Your task to perform on an android device: What's on my calendar today? Image 0: 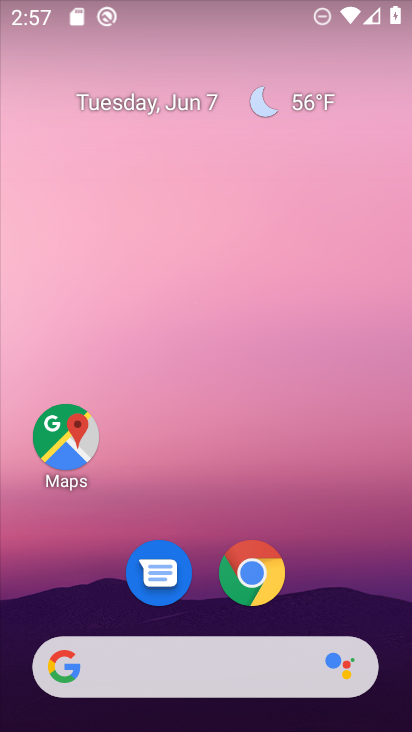
Step 0: drag from (339, 606) to (331, 12)
Your task to perform on an android device: What's on my calendar today? Image 1: 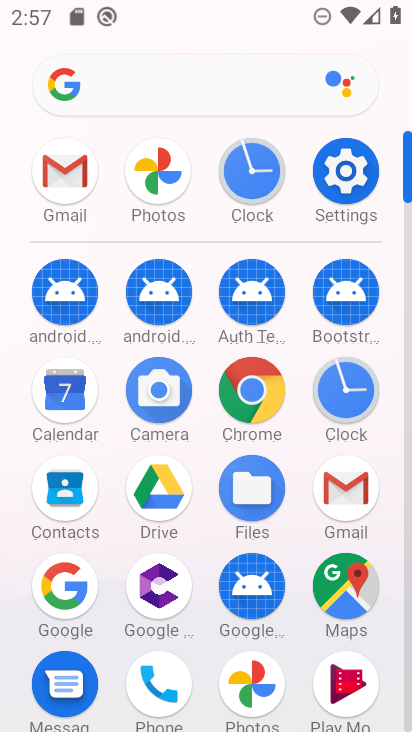
Step 1: click (77, 392)
Your task to perform on an android device: What's on my calendar today? Image 2: 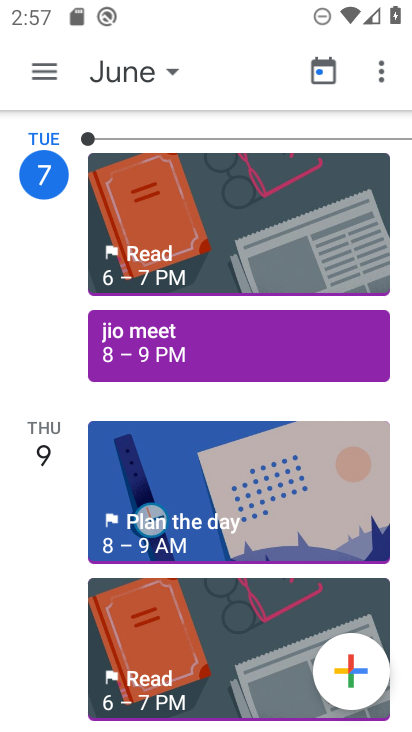
Step 2: click (148, 63)
Your task to perform on an android device: What's on my calendar today? Image 3: 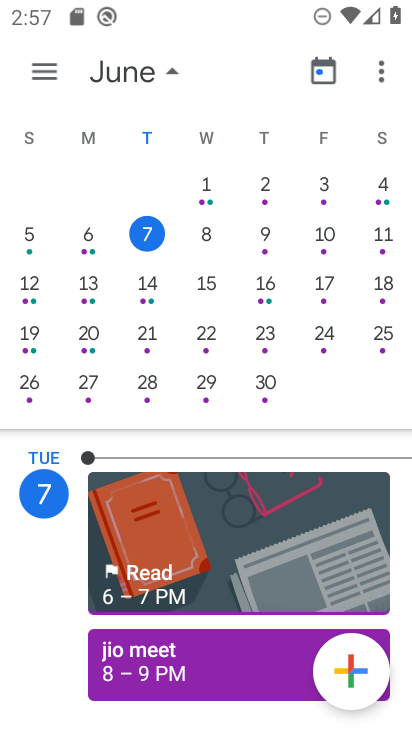
Step 3: click (150, 234)
Your task to perform on an android device: What's on my calendar today? Image 4: 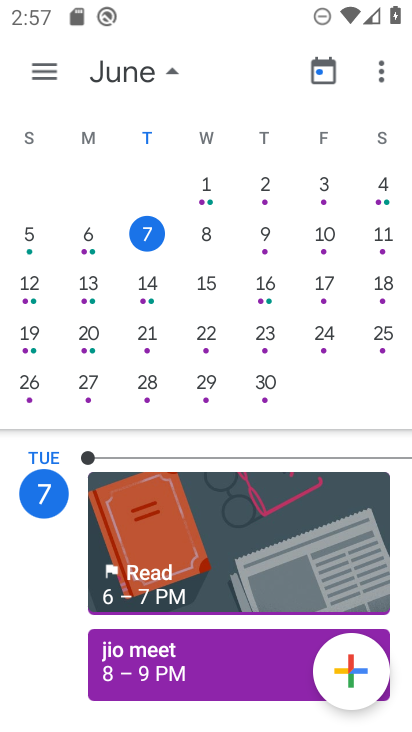
Step 4: task complete